Your task to perform on an android device: add a contact Image 0: 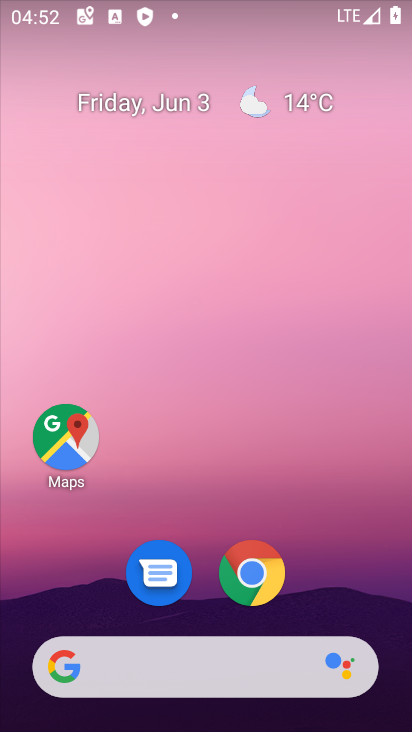
Step 0: press home button
Your task to perform on an android device: add a contact Image 1: 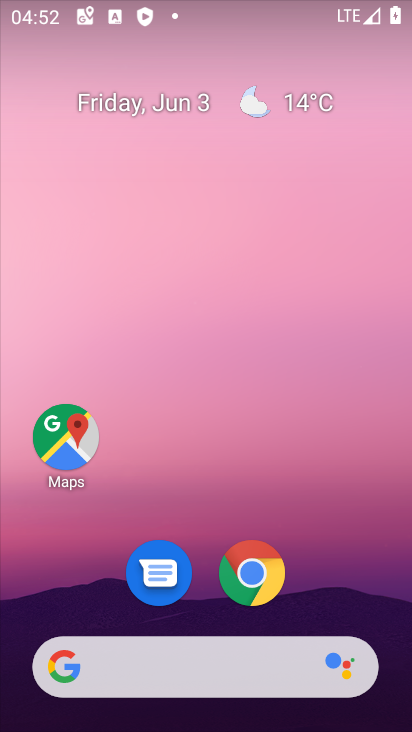
Step 1: drag from (162, 279) to (278, 160)
Your task to perform on an android device: add a contact Image 2: 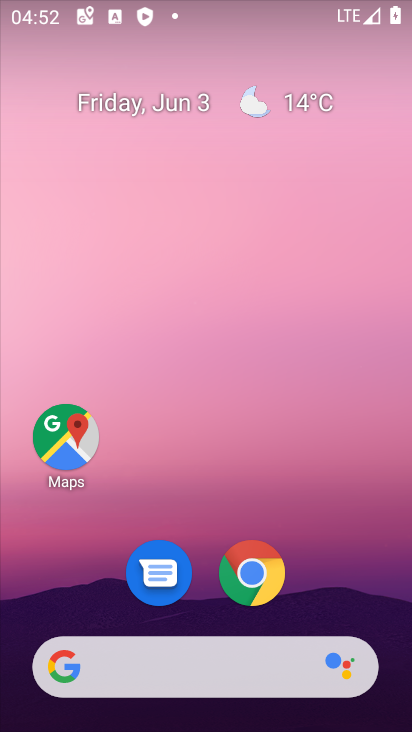
Step 2: drag from (323, 602) to (269, 112)
Your task to perform on an android device: add a contact Image 3: 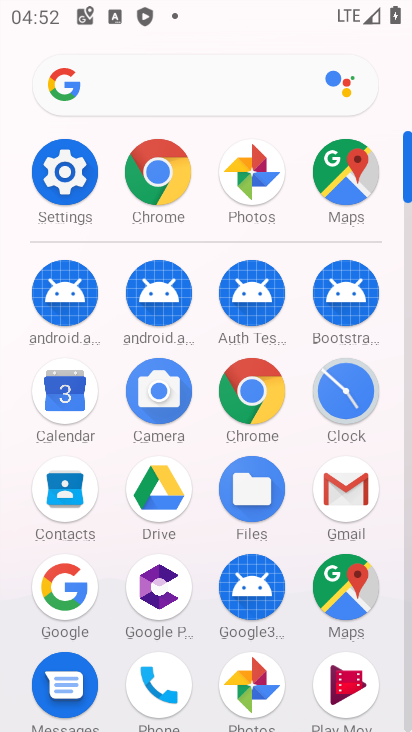
Step 3: click (73, 185)
Your task to perform on an android device: add a contact Image 4: 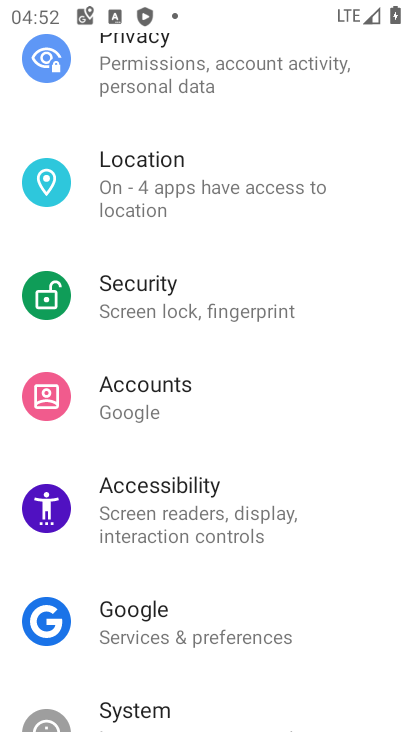
Step 4: drag from (287, 164) to (281, 445)
Your task to perform on an android device: add a contact Image 5: 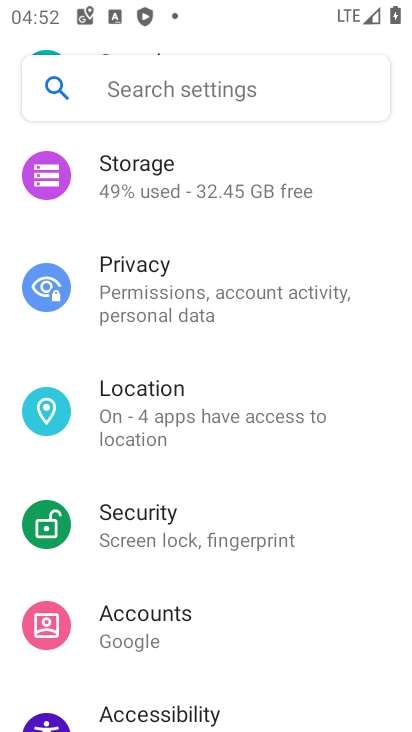
Step 5: drag from (348, 161) to (325, 370)
Your task to perform on an android device: add a contact Image 6: 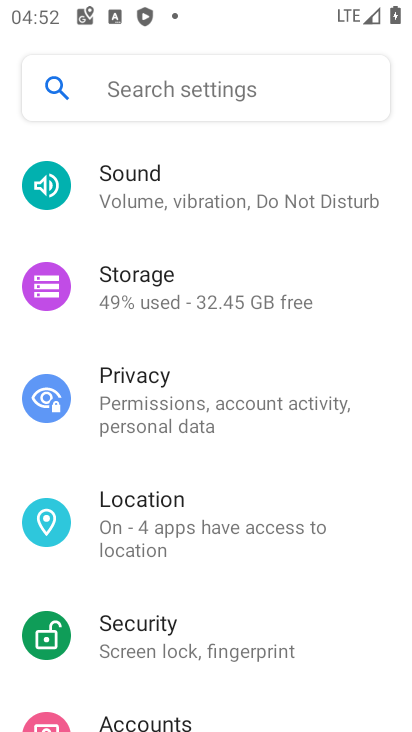
Step 6: drag from (322, 164) to (273, 506)
Your task to perform on an android device: add a contact Image 7: 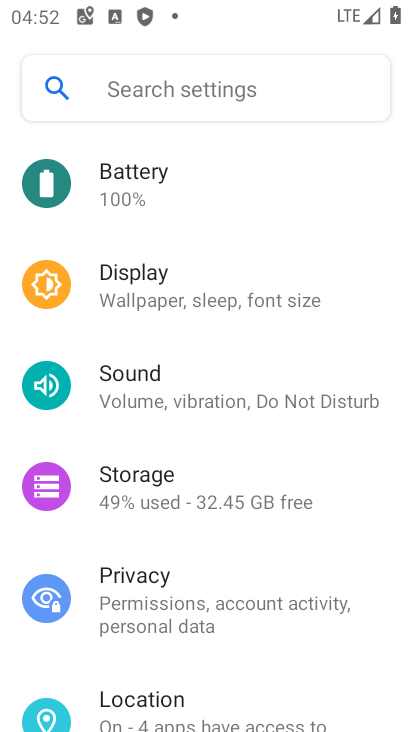
Step 7: drag from (243, 173) to (196, 510)
Your task to perform on an android device: add a contact Image 8: 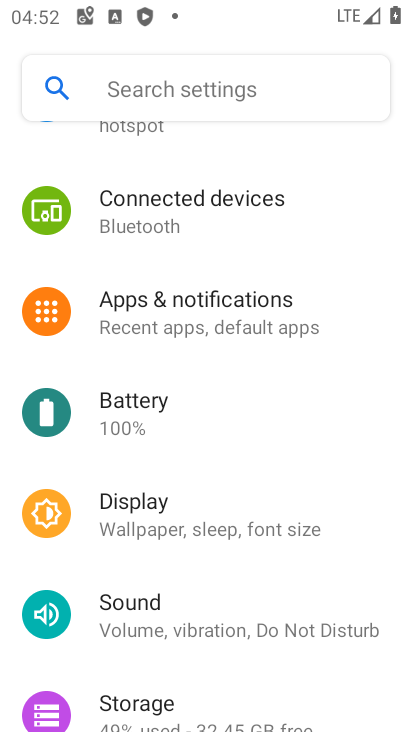
Step 8: press home button
Your task to perform on an android device: add a contact Image 9: 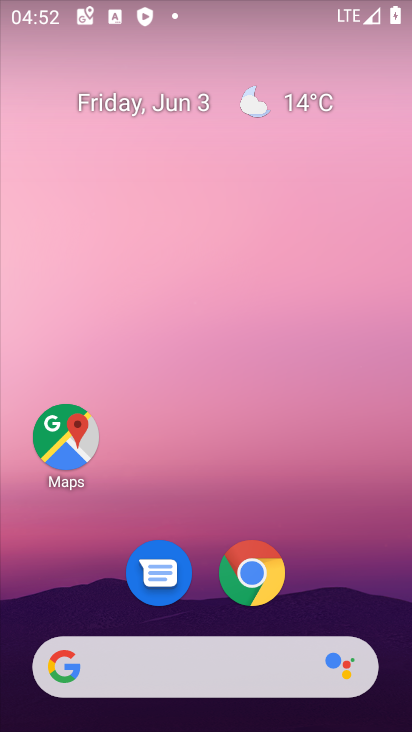
Step 9: drag from (334, 591) to (281, 170)
Your task to perform on an android device: add a contact Image 10: 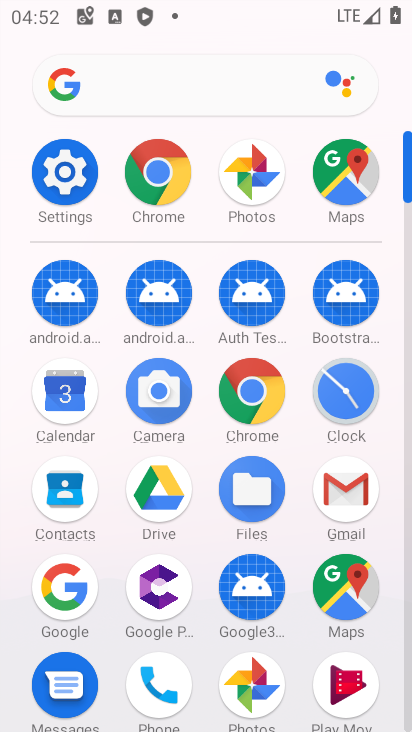
Step 10: click (154, 696)
Your task to perform on an android device: add a contact Image 11: 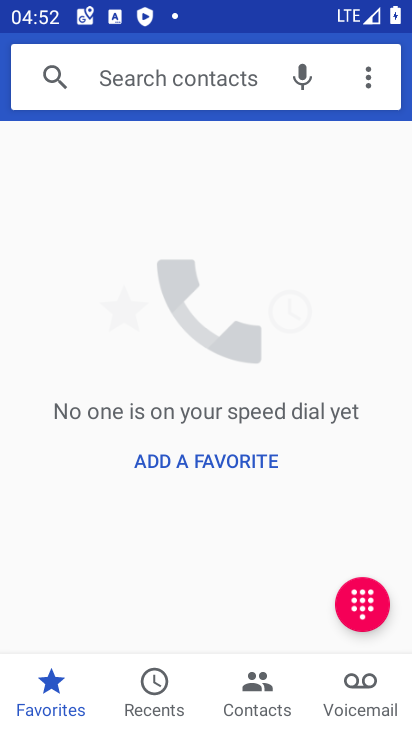
Step 11: click (255, 698)
Your task to perform on an android device: add a contact Image 12: 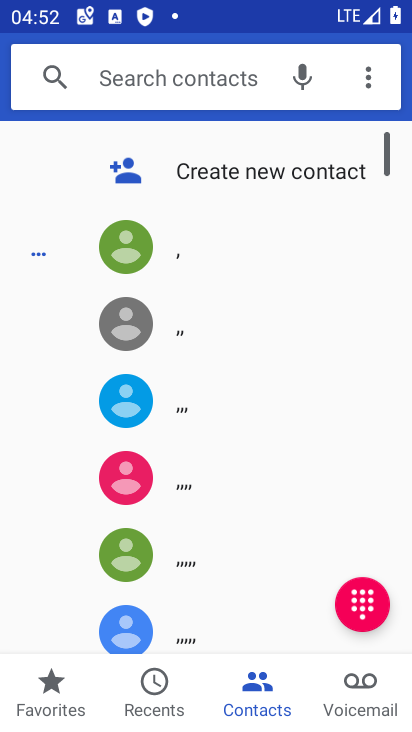
Step 12: click (301, 170)
Your task to perform on an android device: add a contact Image 13: 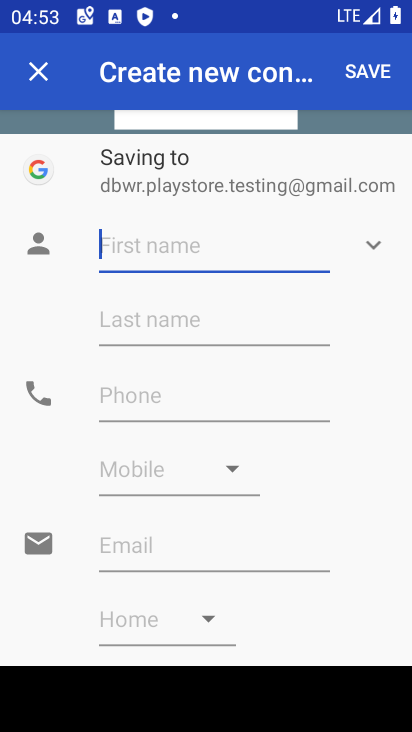
Step 13: type "dfgrg"
Your task to perform on an android device: add a contact Image 14: 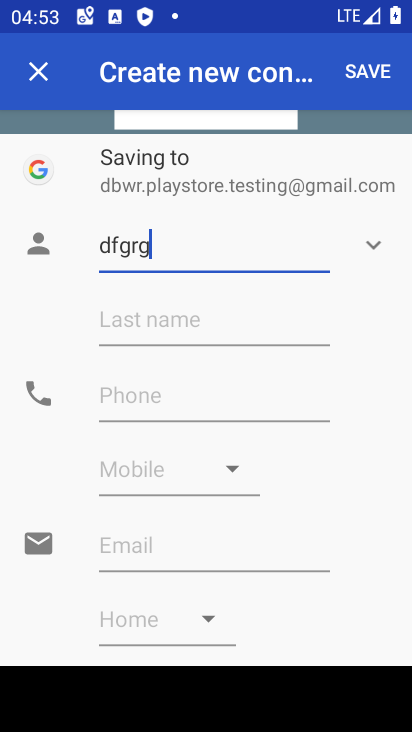
Step 14: click (156, 403)
Your task to perform on an android device: add a contact Image 15: 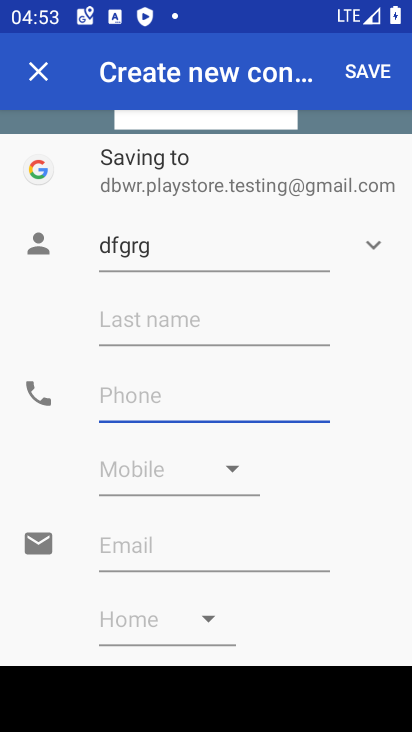
Step 15: type "9089090987"
Your task to perform on an android device: add a contact Image 16: 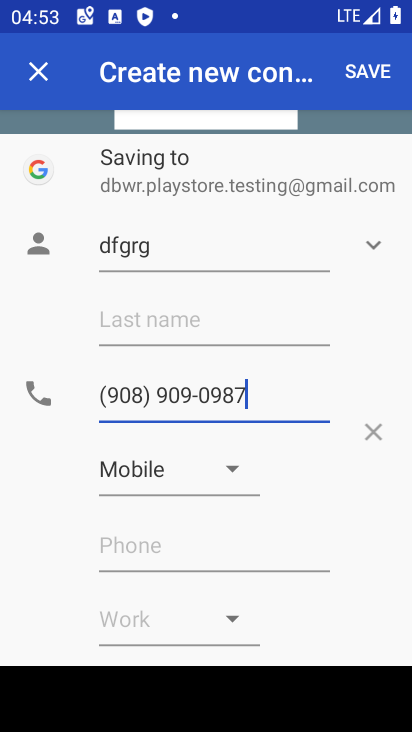
Step 16: click (376, 74)
Your task to perform on an android device: add a contact Image 17: 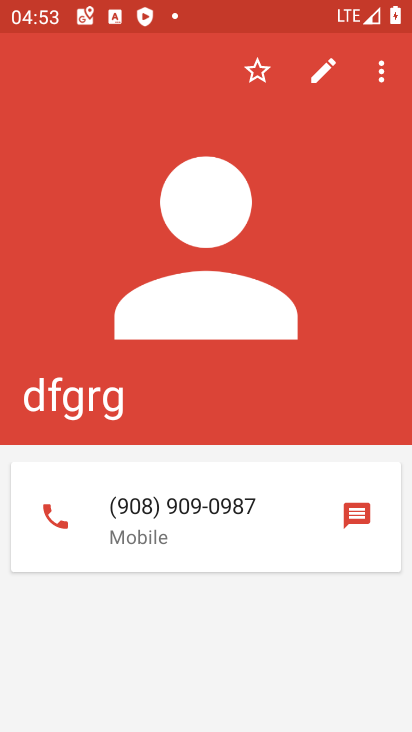
Step 17: task complete